Your task to perform on an android device: Open CNN.com Image 0: 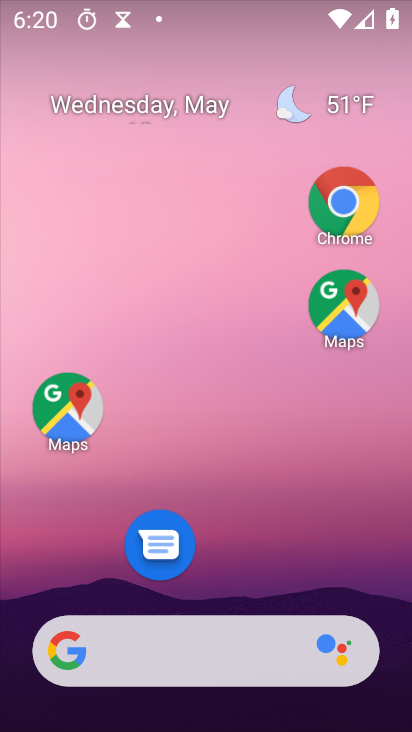
Step 0: drag from (239, 522) to (142, 31)
Your task to perform on an android device: Open CNN.com Image 1: 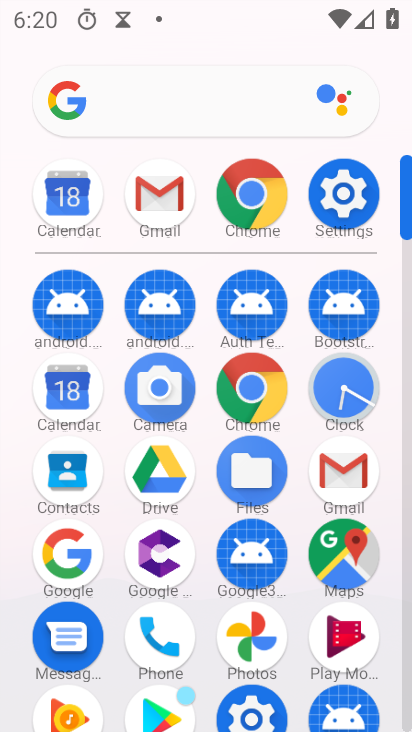
Step 1: click (244, 216)
Your task to perform on an android device: Open CNN.com Image 2: 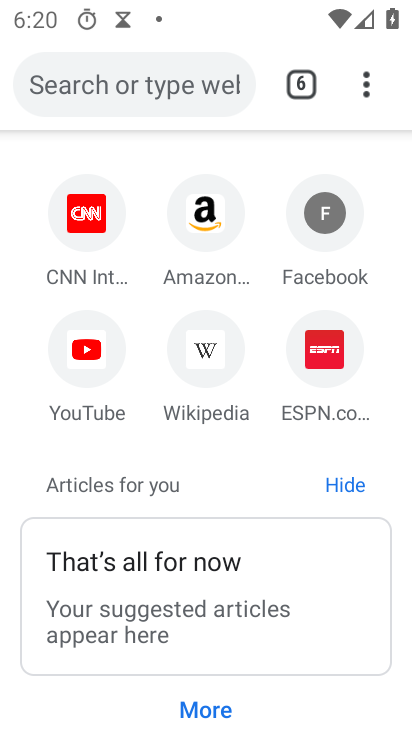
Step 2: click (77, 229)
Your task to perform on an android device: Open CNN.com Image 3: 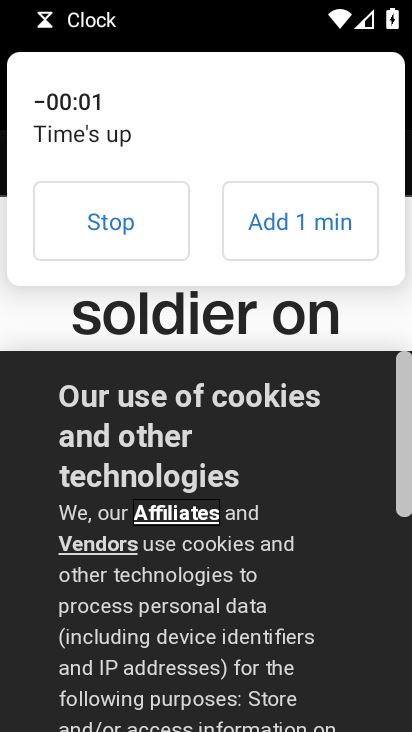
Step 3: task complete